Your task to perform on an android device: Show me popular videos on Youtube Image 0: 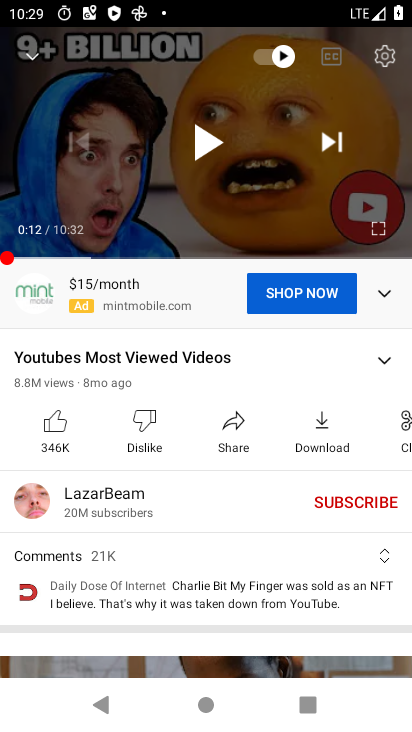
Step 0: click (219, 132)
Your task to perform on an android device: Show me popular videos on Youtube Image 1: 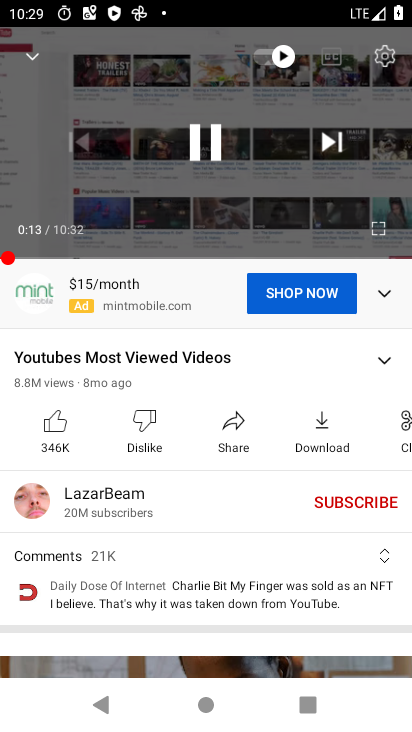
Step 1: task complete